Your task to perform on an android device: change keyboard looks Image 0: 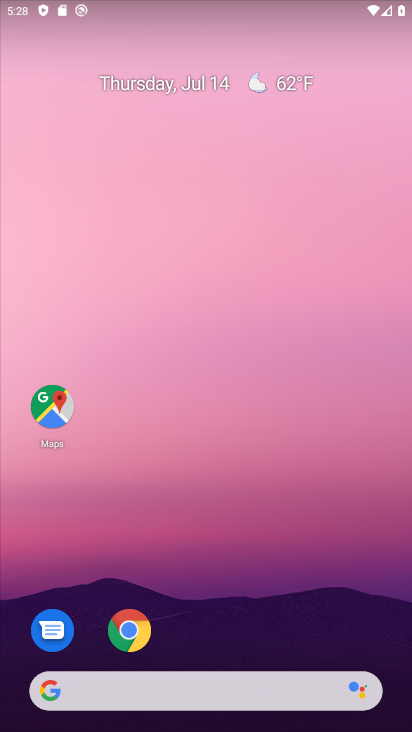
Step 0: drag from (258, 425) to (230, 6)
Your task to perform on an android device: change keyboard looks Image 1: 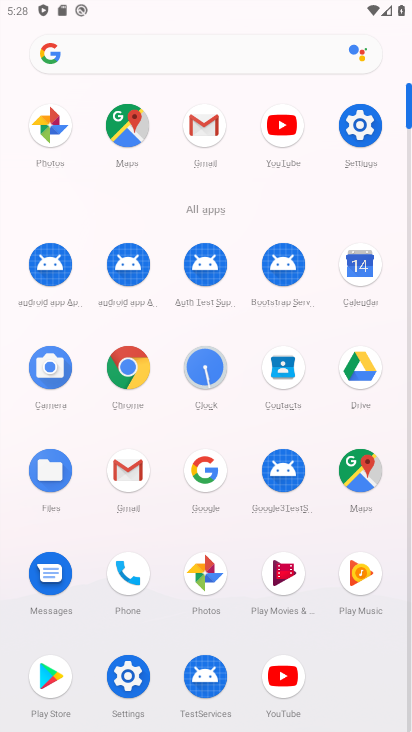
Step 1: click (346, 134)
Your task to perform on an android device: change keyboard looks Image 2: 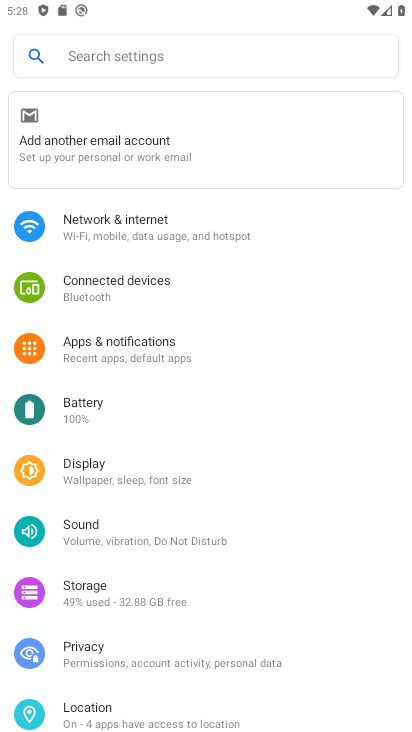
Step 2: drag from (165, 612) to (175, 143)
Your task to perform on an android device: change keyboard looks Image 3: 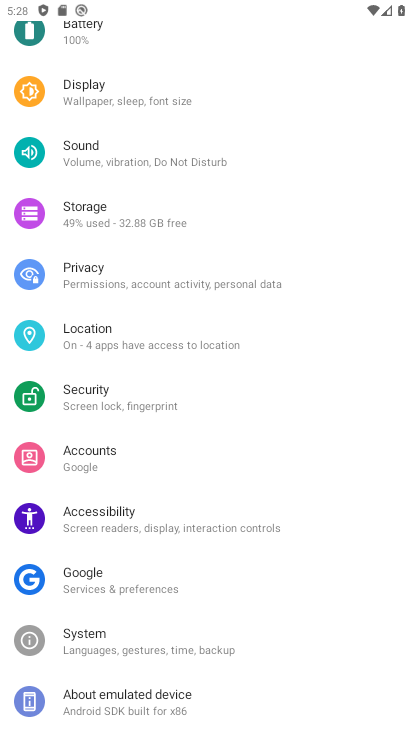
Step 3: drag from (157, 614) to (273, 74)
Your task to perform on an android device: change keyboard looks Image 4: 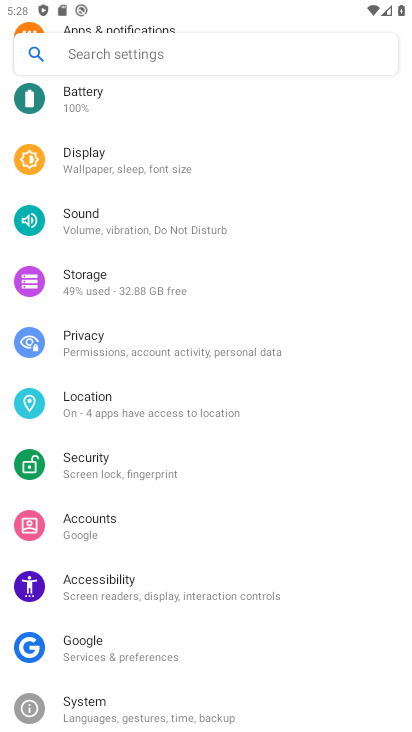
Step 4: drag from (86, 678) to (143, 244)
Your task to perform on an android device: change keyboard looks Image 5: 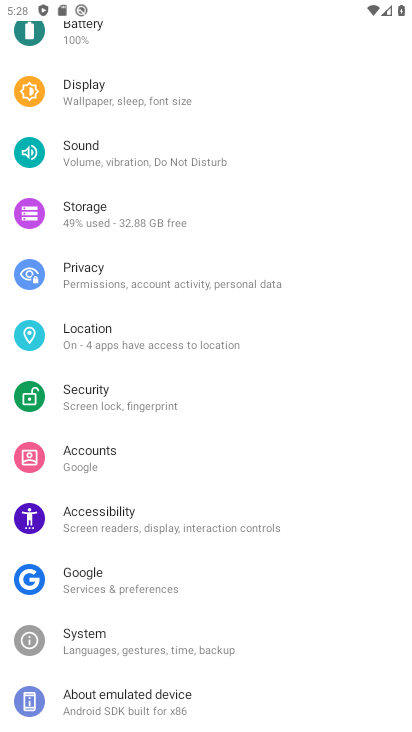
Step 5: drag from (121, 544) to (136, 373)
Your task to perform on an android device: change keyboard looks Image 6: 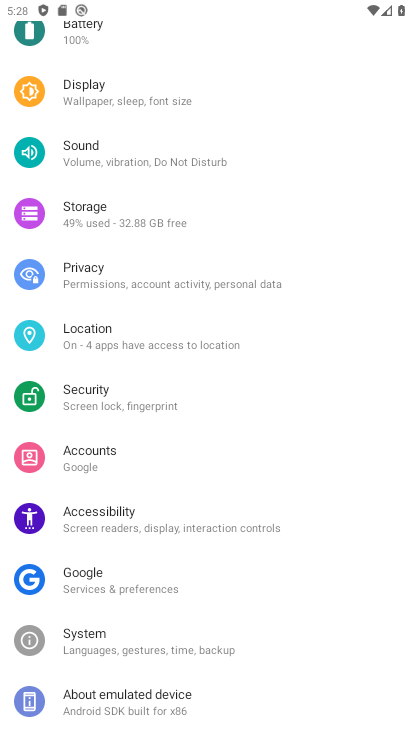
Step 6: click (125, 647)
Your task to perform on an android device: change keyboard looks Image 7: 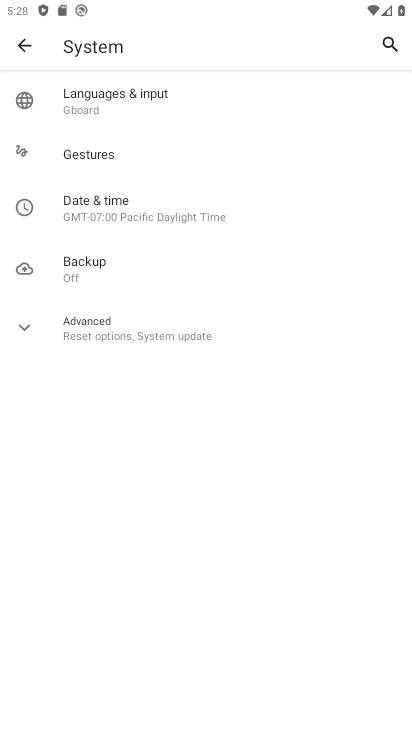
Step 7: click (118, 95)
Your task to perform on an android device: change keyboard looks Image 8: 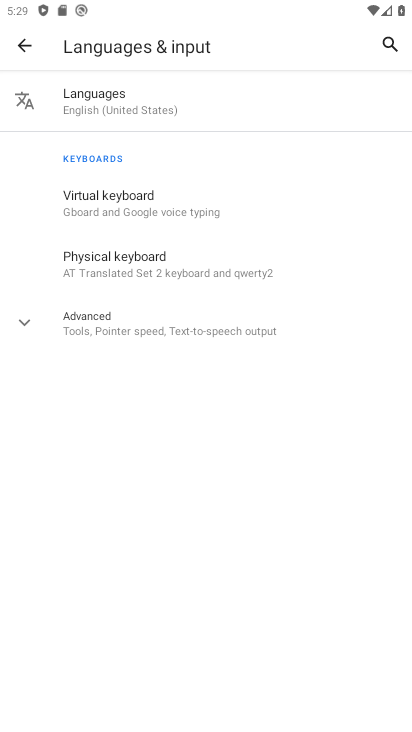
Step 8: click (182, 205)
Your task to perform on an android device: change keyboard looks Image 9: 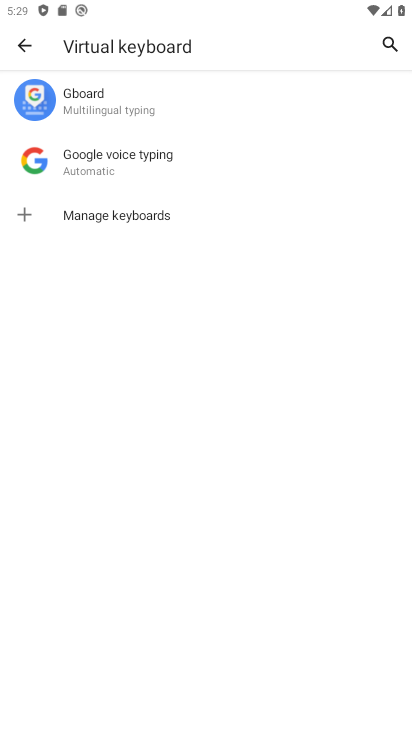
Step 9: click (171, 123)
Your task to perform on an android device: change keyboard looks Image 10: 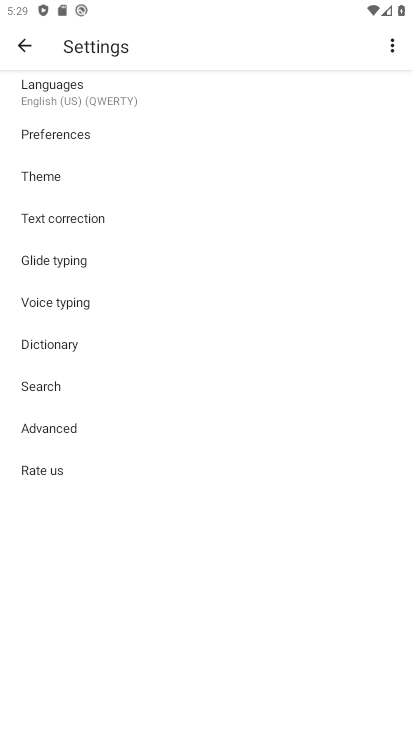
Step 10: click (54, 191)
Your task to perform on an android device: change keyboard looks Image 11: 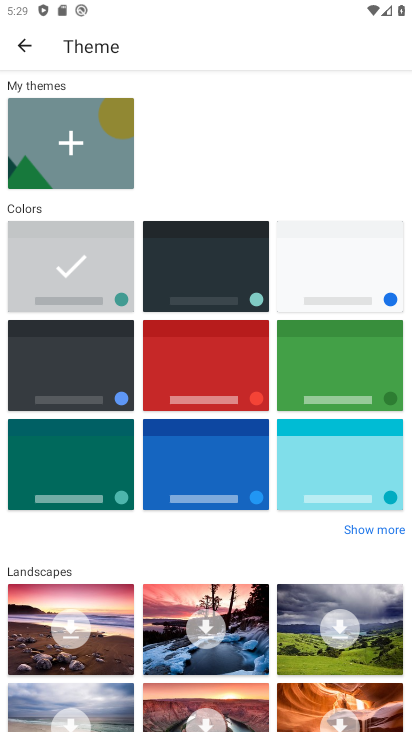
Step 11: click (68, 630)
Your task to perform on an android device: change keyboard looks Image 12: 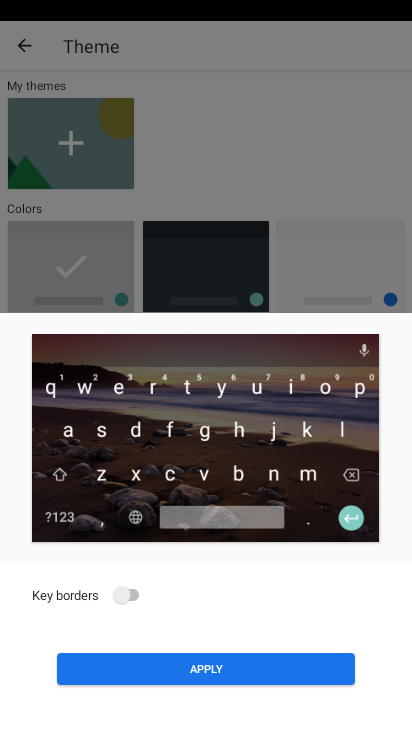
Step 12: click (214, 674)
Your task to perform on an android device: change keyboard looks Image 13: 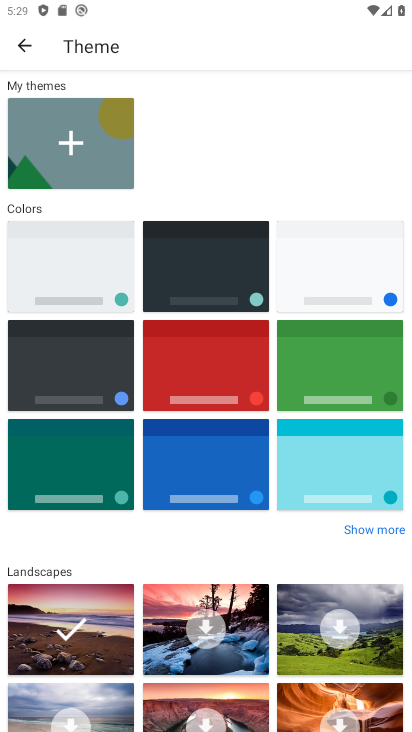
Step 13: task complete